Your task to perform on an android device: remove spam from my inbox in the gmail app Image 0: 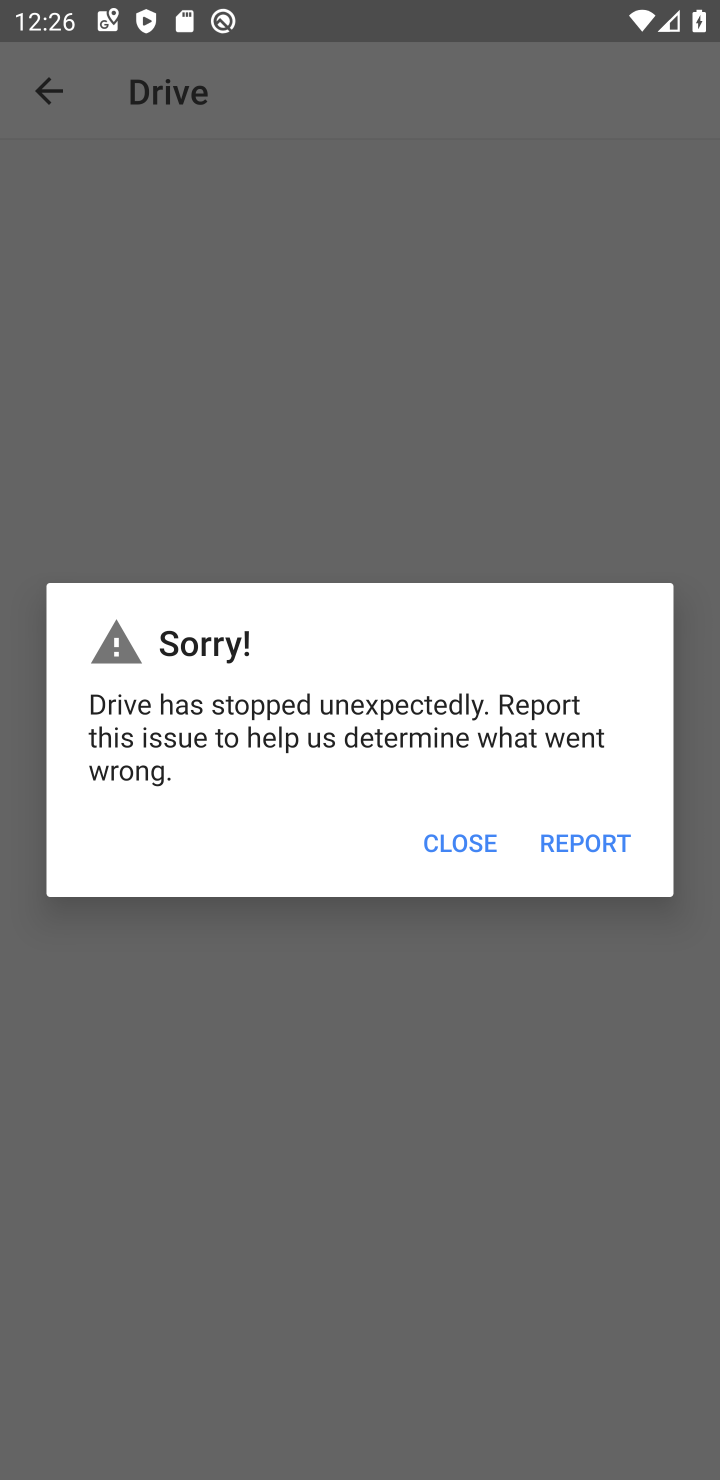
Step 0: press home button
Your task to perform on an android device: remove spam from my inbox in the gmail app Image 1: 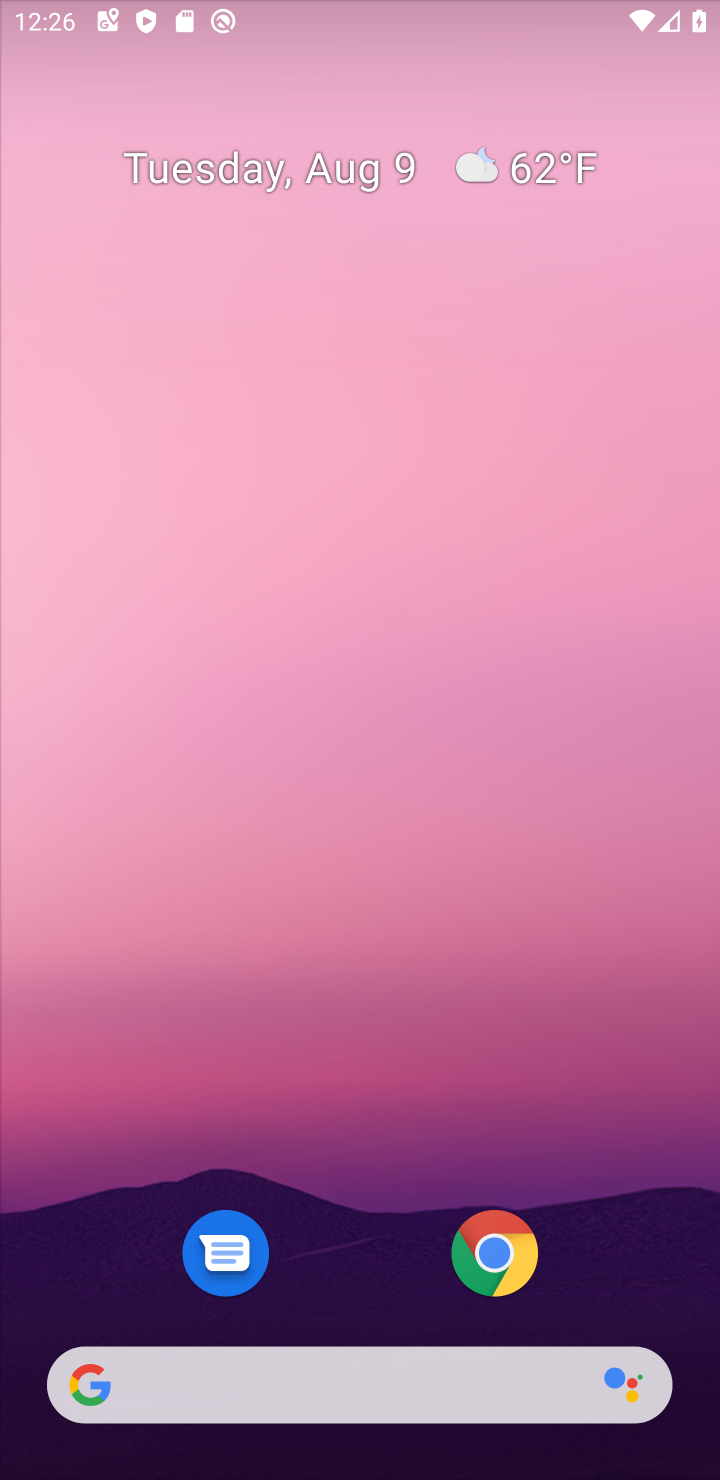
Step 1: drag from (640, 1229) to (250, 48)
Your task to perform on an android device: remove spam from my inbox in the gmail app Image 2: 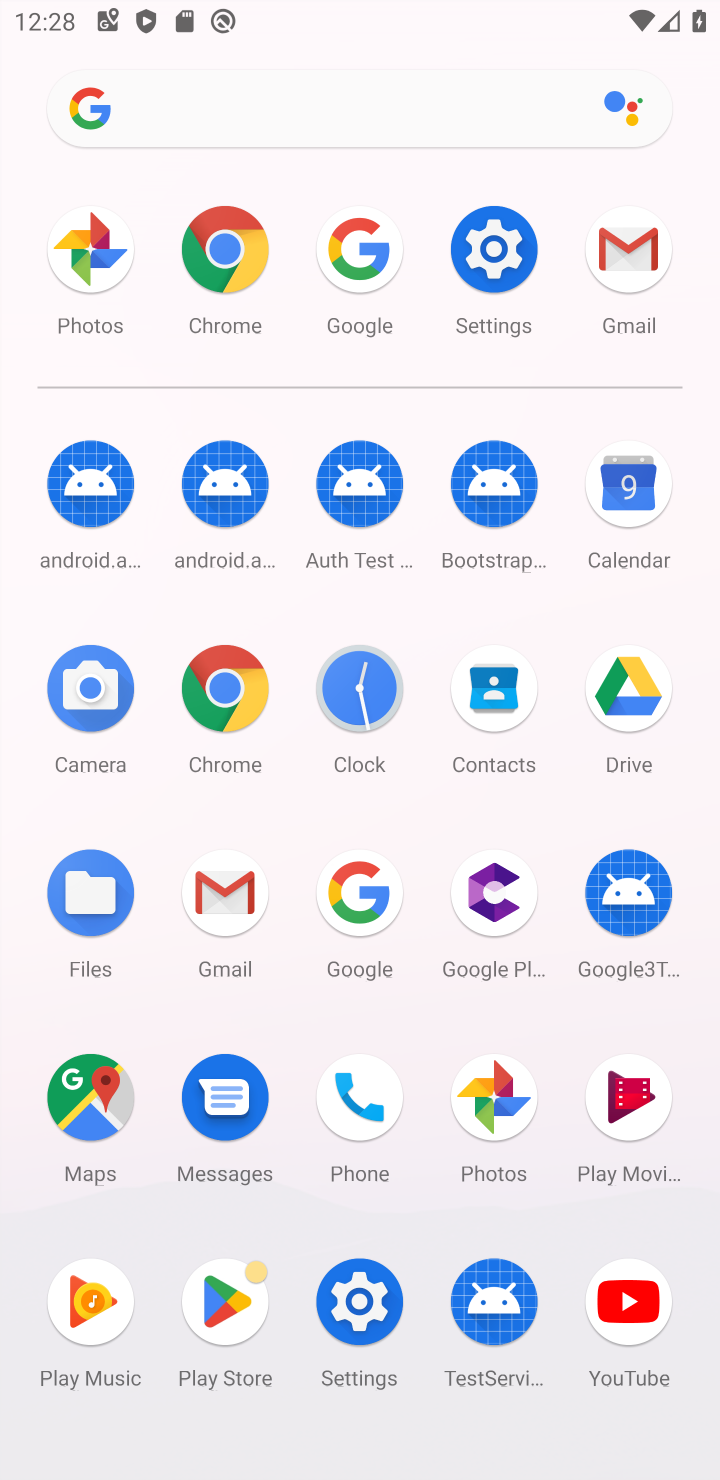
Step 2: click (220, 885)
Your task to perform on an android device: remove spam from my inbox in the gmail app Image 3: 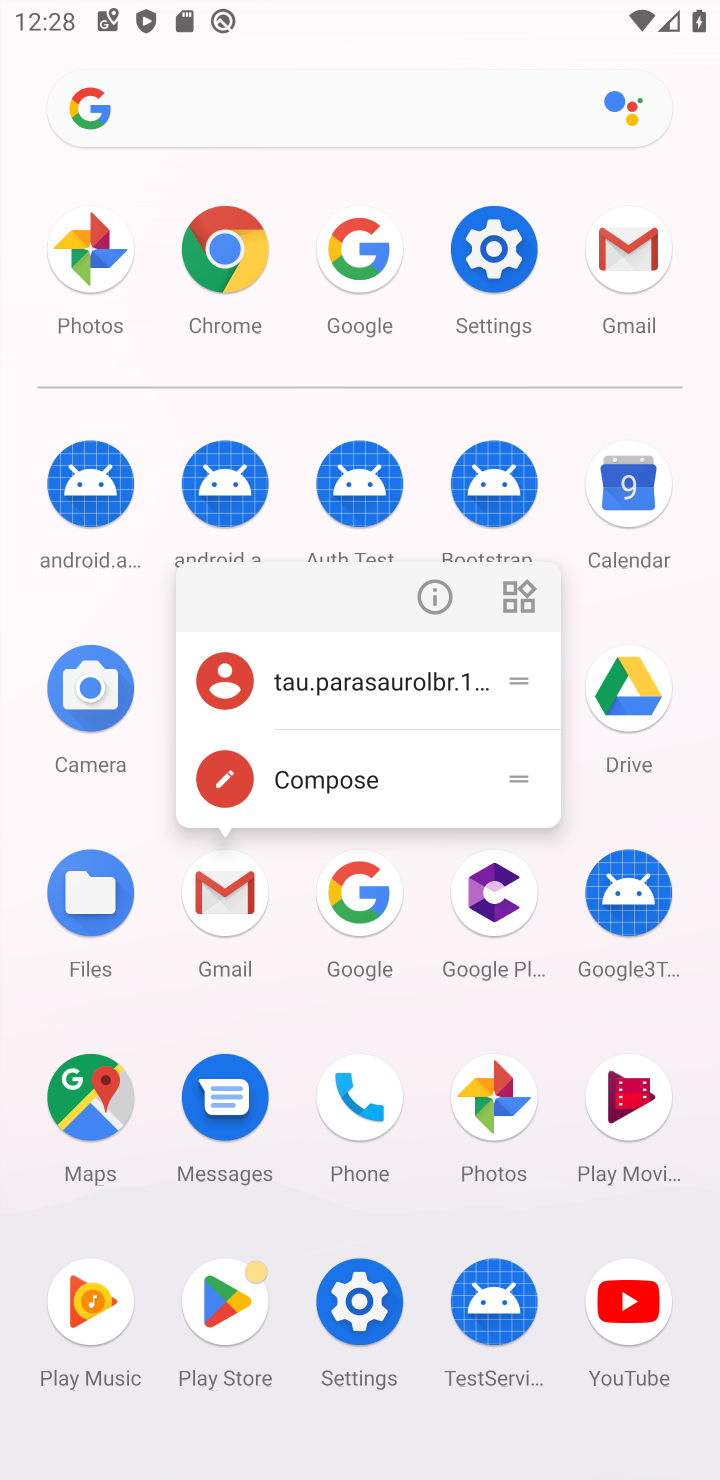
Step 3: click (127, 906)
Your task to perform on an android device: remove spam from my inbox in the gmail app Image 4: 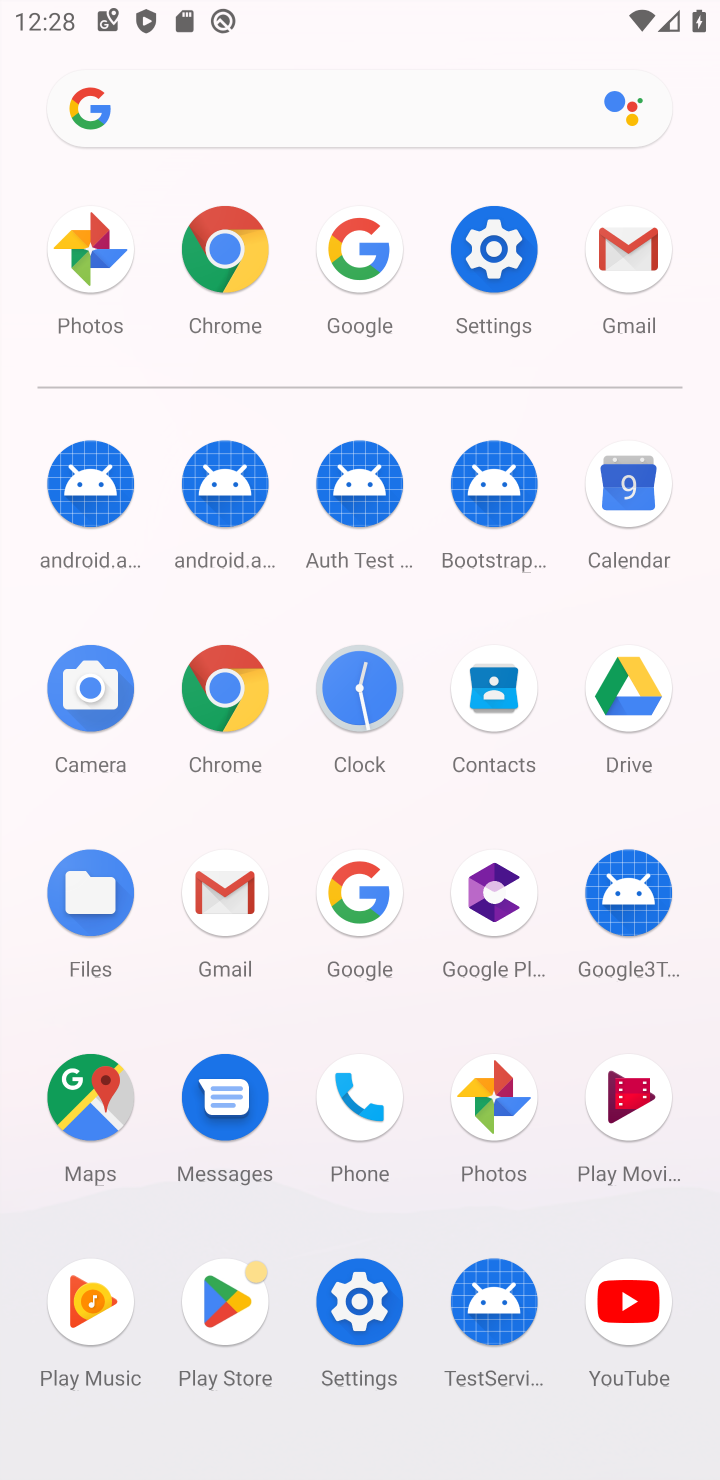
Step 4: click (262, 916)
Your task to perform on an android device: remove spam from my inbox in the gmail app Image 5: 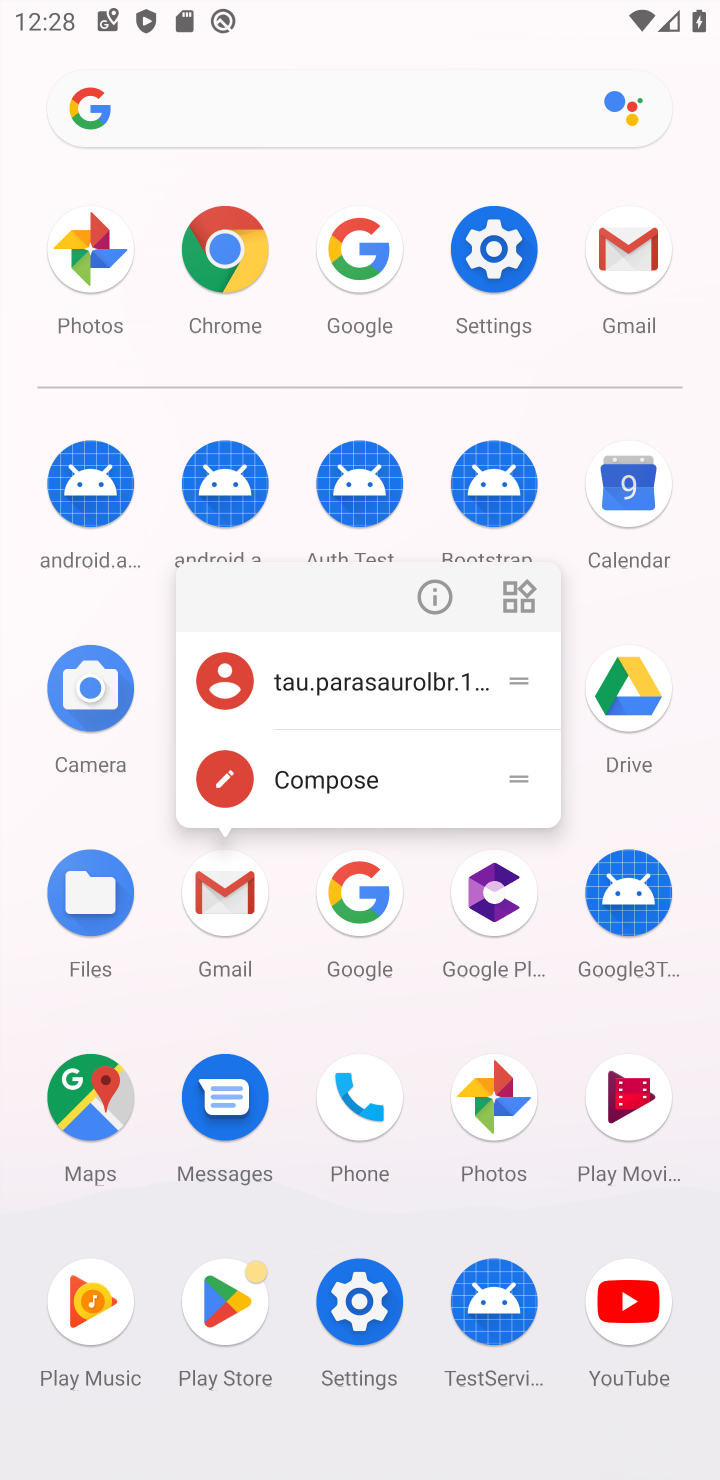
Step 5: click (238, 900)
Your task to perform on an android device: remove spam from my inbox in the gmail app Image 6: 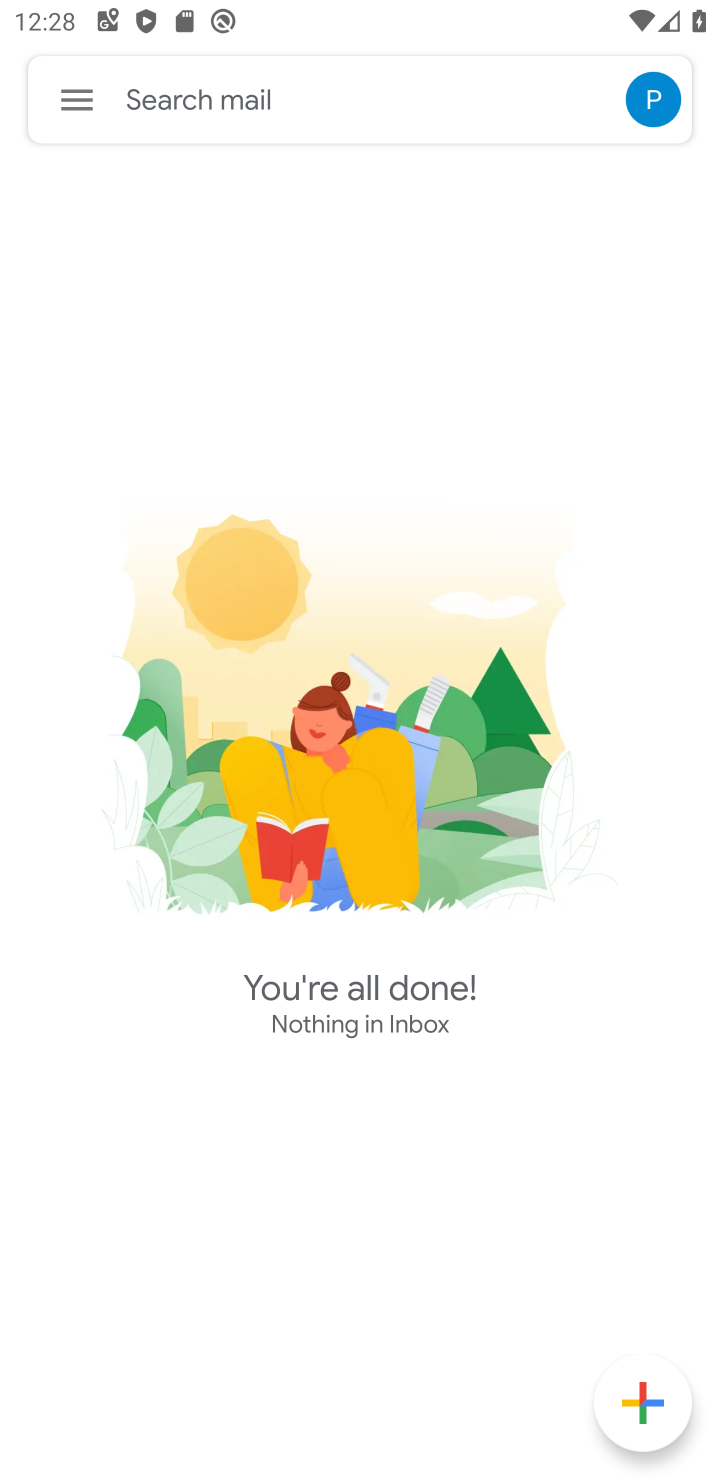
Step 6: task complete